Your task to perform on an android device: Go to Wikipedia Image 0: 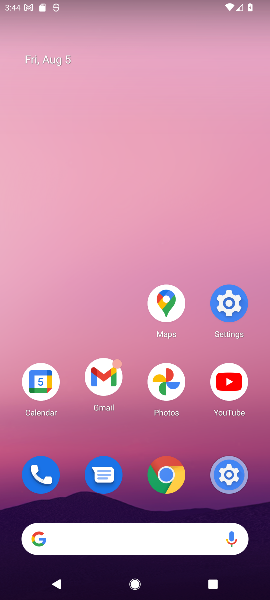
Step 0: click (169, 473)
Your task to perform on an android device: Go to Wikipedia Image 1: 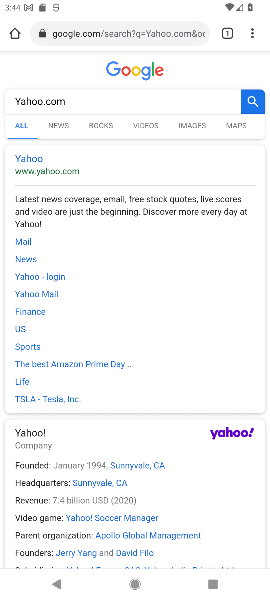
Step 1: click (109, 35)
Your task to perform on an android device: Go to Wikipedia Image 2: 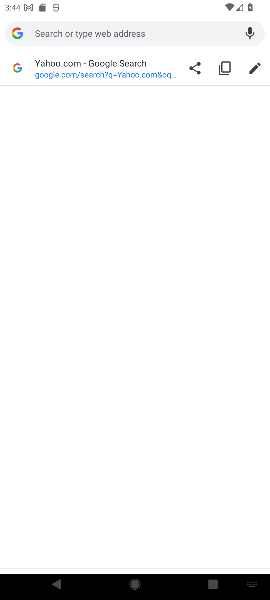
Step 2: click (165, 34)
Your task to perform on an android device: Go to Wikipedia Image 3: 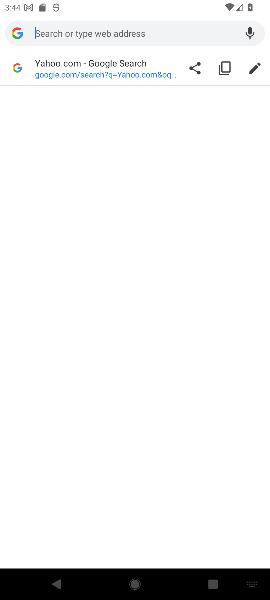
Step 3: type "Wikipedia"
Your task to perform on an android device: Go to Wikipedia Image 4: 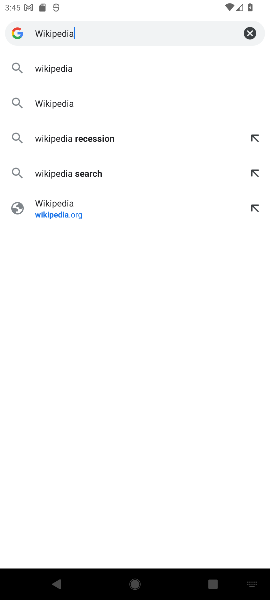
Step 4: click (49, 67)
Your task to perform on an android device: Go to Wikipedia Image 5: 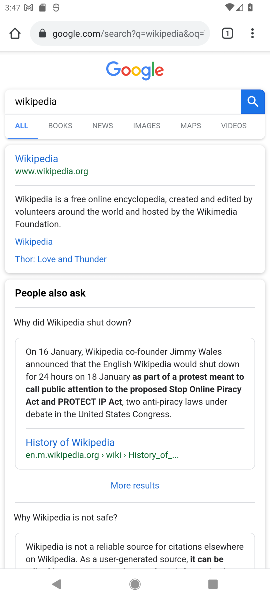
Step 5: task complete